Your task to perform on an android device: Go to Google Image 0: 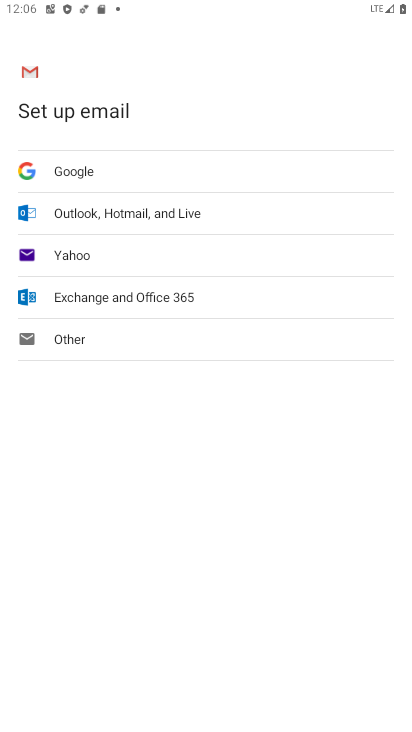
Step 0: press home button
Your task to perform on an android device: Go to Google Image 1: 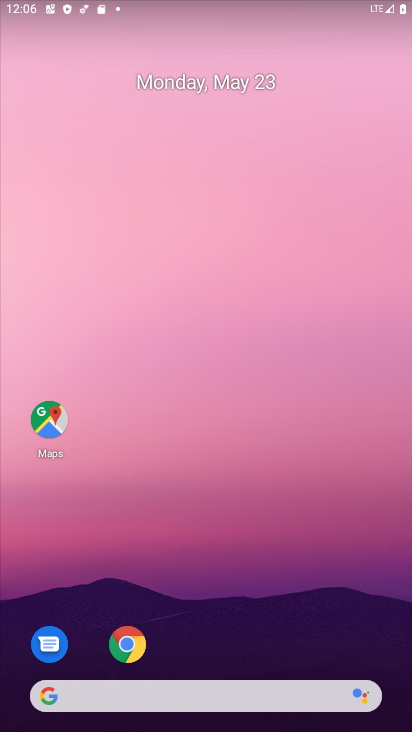
Step 1: drag from (319, 641) to (296, 32)
Your task to perform on an android device: Go to Google Image 2: 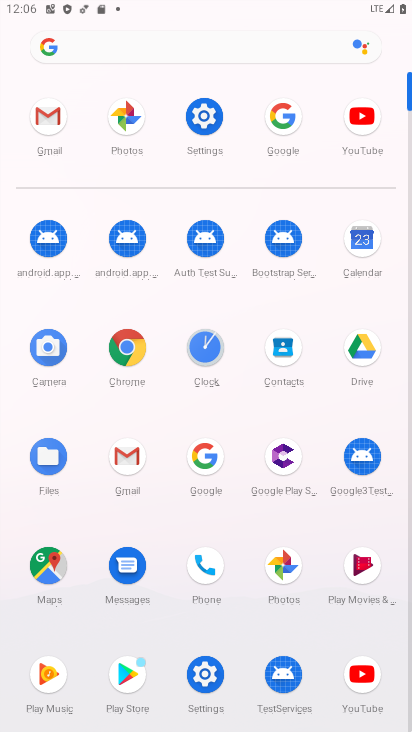
Step 2: click (215, 446)
Your task to perform on an android device: Go to Google Image 3: 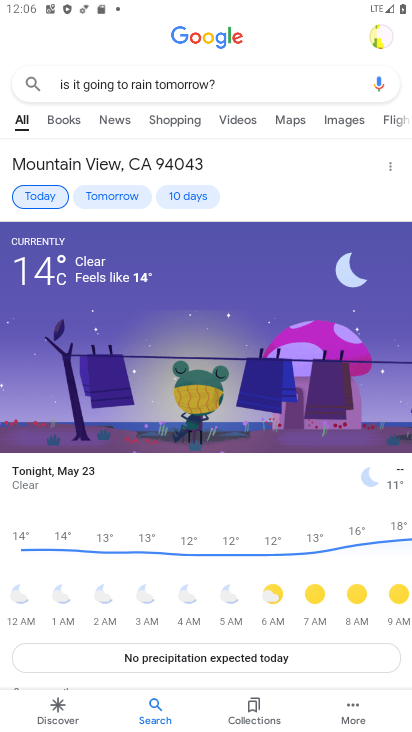
Step 3: task complete